Your task to perform on an android device: turn off javascript in the chrome app Image 0: 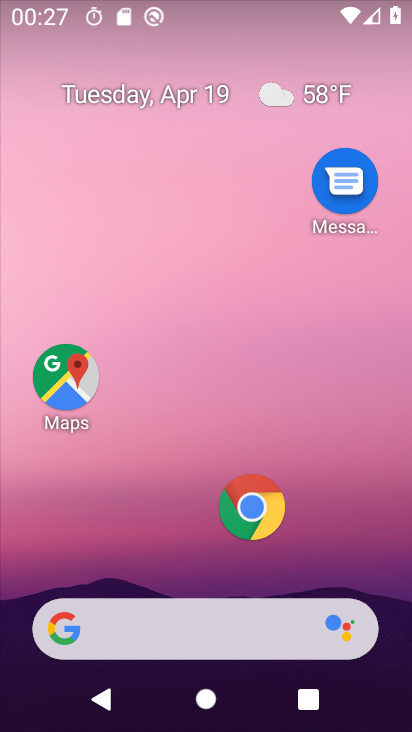
Step 0: click (274, 515)
Your task to perform on an android device: turn off javascript in the chrome app Image 1: 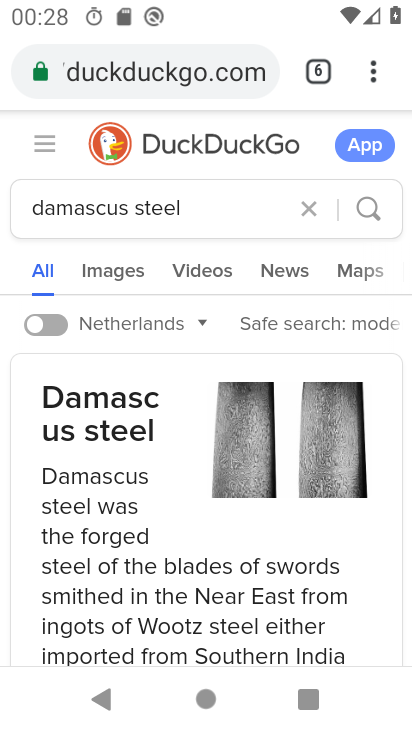
Step 1: click (374, 71)
Your task to perform on an android device: turn off javascript in the chrome app Image 2: 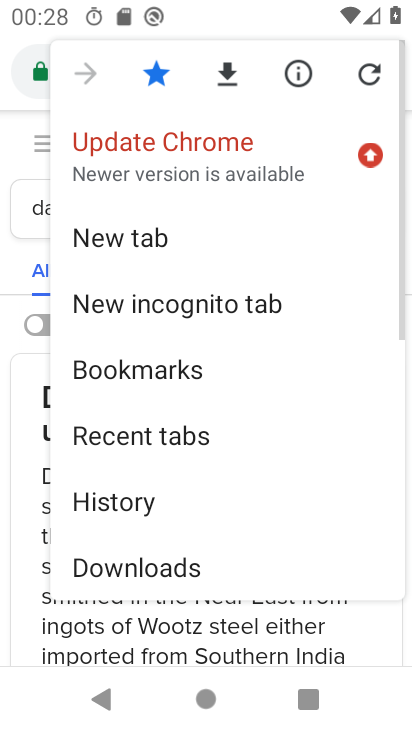
Step 2: drag from (164, 556) to (172, 102)
Your task to perform on an android device: turn off javascript in the chrome app Image 3: 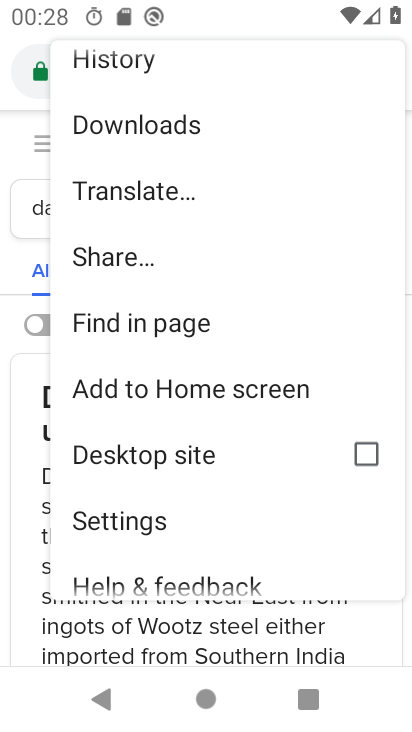
Step 3: click (124, 508)
Your task to perform on an android device: turn off javascript in the chrome app Image 4: 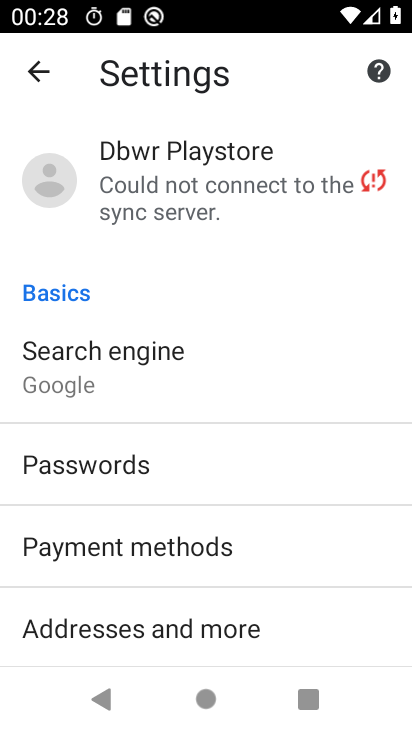
Step 4: drag from (175, 496) to (260, 112)
Your task to perform on an android device: turn off javascript in the chrome app Image 5: 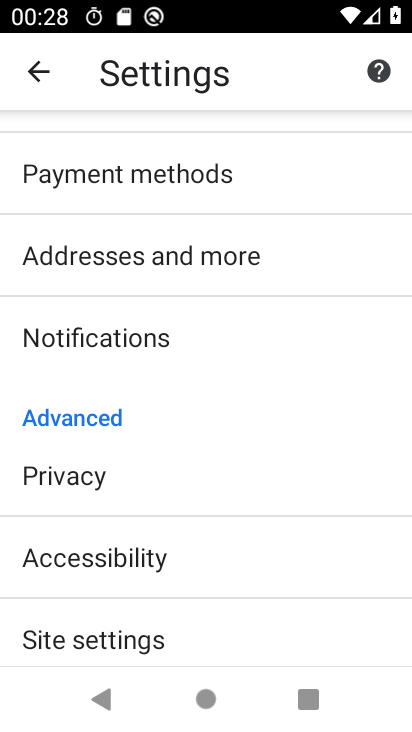
Step 5: drag from (150, 517) to (195, 219)
Your task to perform on an android device: turn off javascript in the chrome app Image 6: 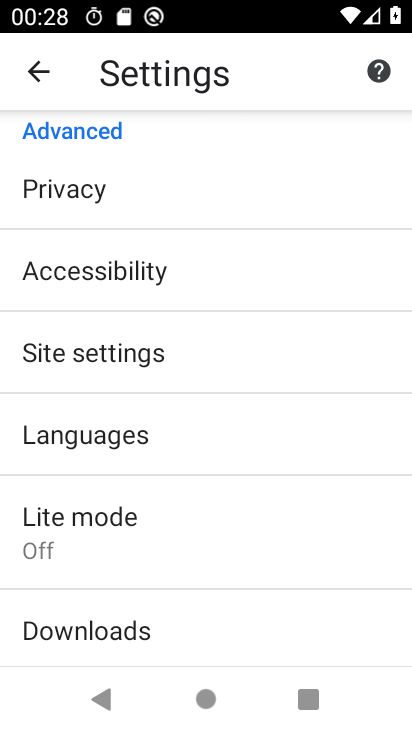
Step 6: click (124, 360)
Your task to perform on an android device: turn off javascript in the chrome app Image 7: 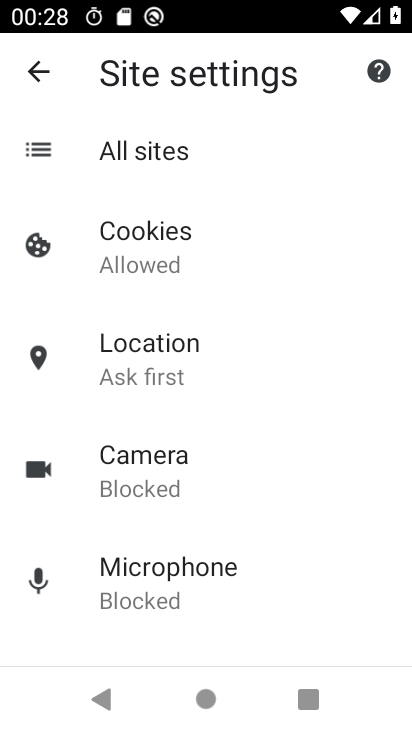
Step 7: drag from (157, 536) to (206, 257)
Your task to perform on an android device: turn off javascript in the chrome app Image 8: 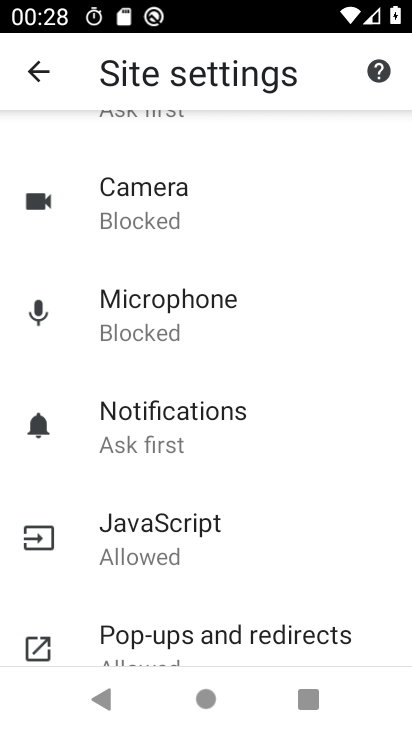
Step 8: click (157, 545)
Your task to perform on an android device: turn off javascript in the chrome app Image 9: 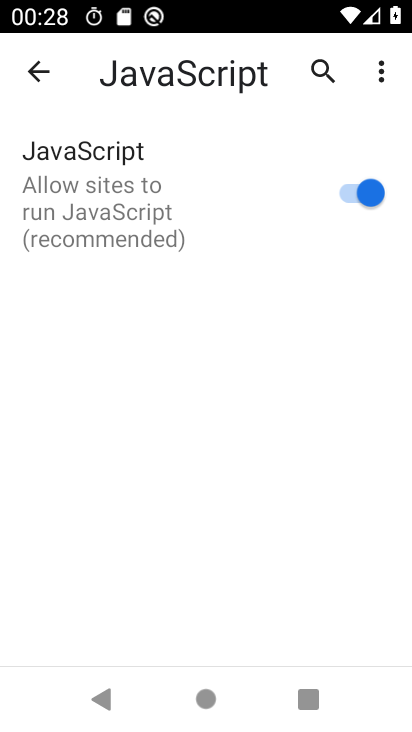
Step 9: click (339, 185)
Your task to perform on an android device: turn off javascript in the chrome app Image 10: 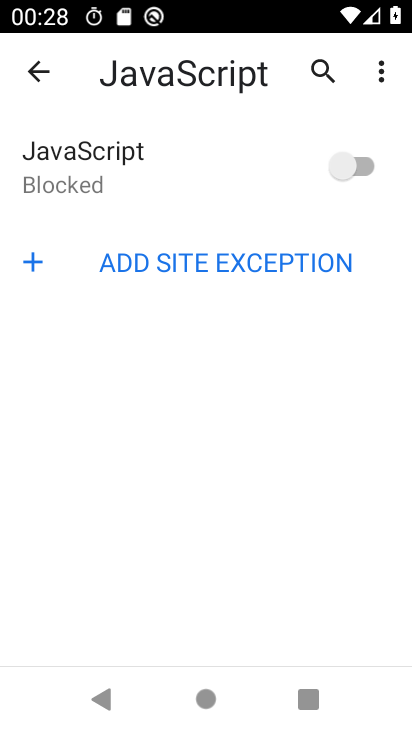
Step 10: task complete